Your task to perform on an android device: turn on wifi Image 0: 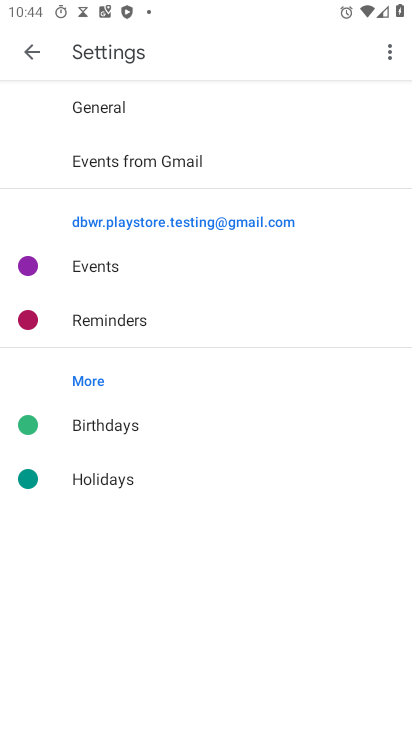
Step 0: press home button
Your task to perform on an android device: turn on wifi Image 1: 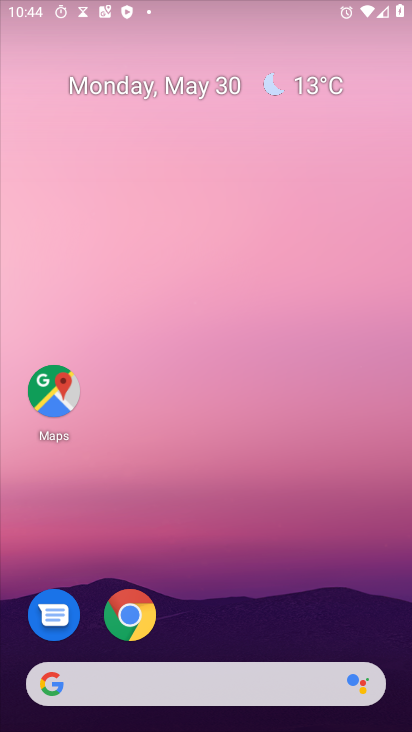
Step 1: drag from (181, 571) to (309, 5)
Your task to perform on an android device: turn on wifi Image 2: 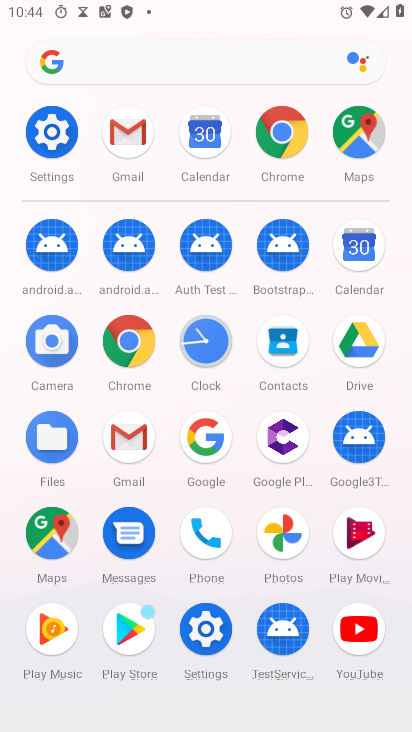
Step 2: click (50, 129)
Your task to perform on an android device: turn on wifi Image 3: 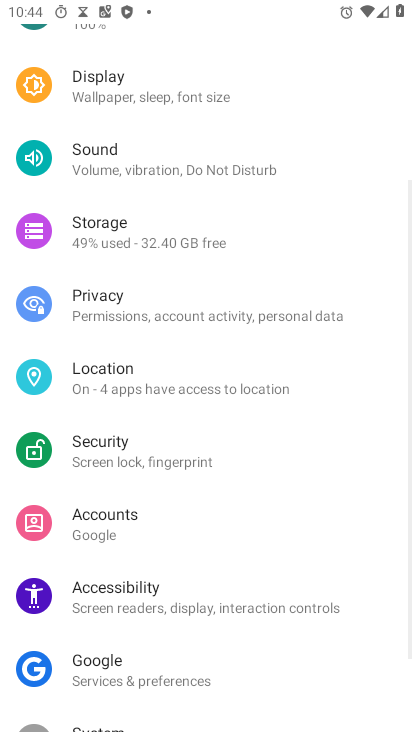
Step 3: drag from (223, 256) to (227, 649)
Your task to perform on an android device: turn on wifi Image 4: 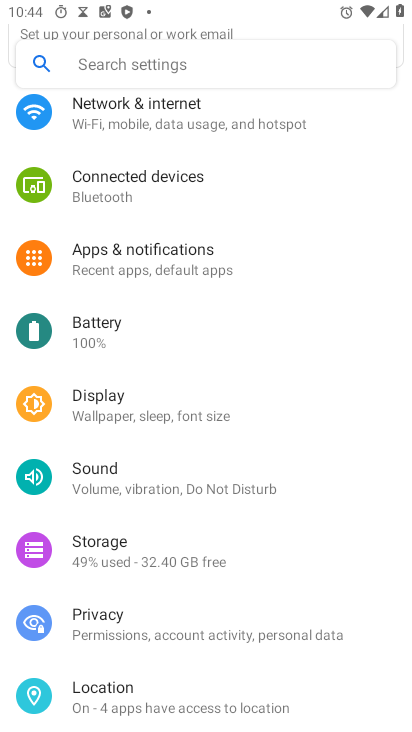
Step 4: drag from (264, 192) to (287, 553)
Your task to perform on an android device: turn on wifi Image 5: 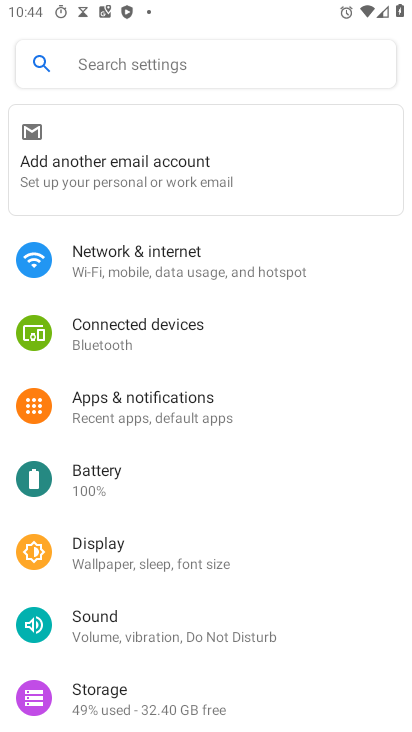
Step 5: click (188, 264)
Your task to perform on an android device: turn on wifi Image 6: 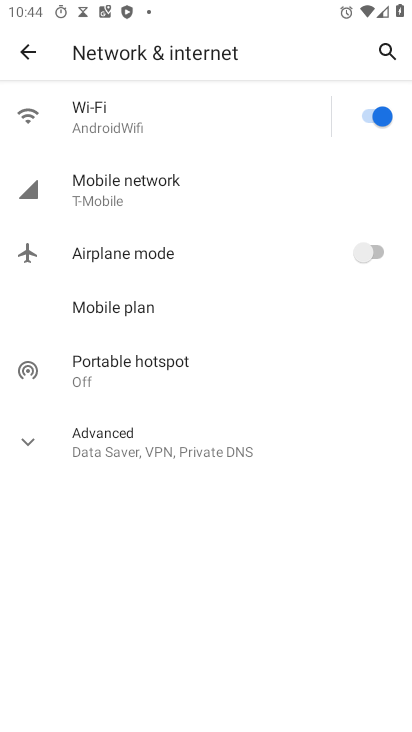
Step 6: task complete